Your task to perform on an android device: all mails in gmail Image 0: 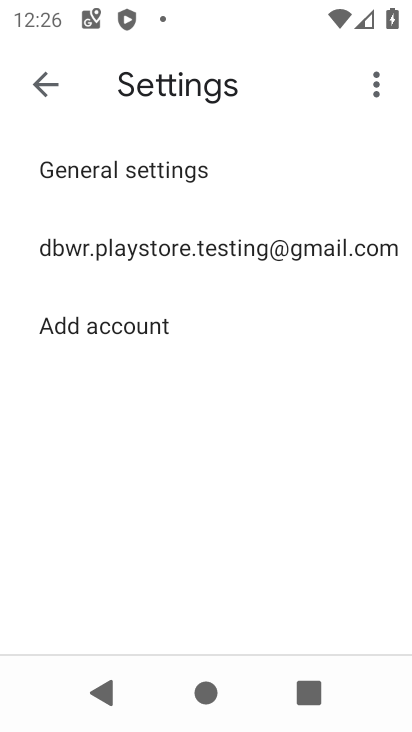
Step 0: press home button
Your task to perform on an android device: all mails in gmail Image 1: 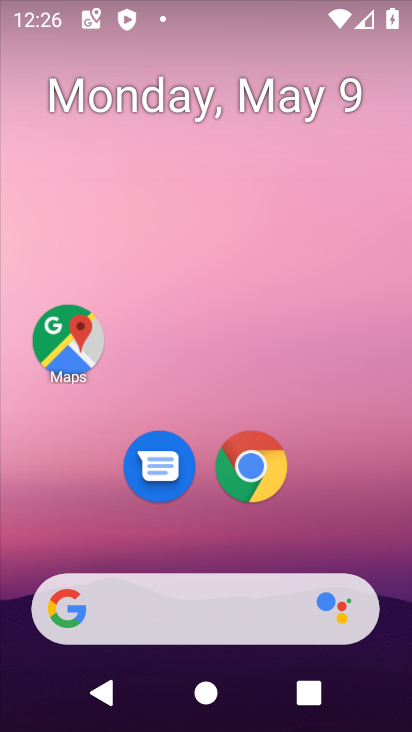
Step 1: drag from (385, 531) to (353, 244)
Your task to perform on an android device: all mails in gmail Image 2: 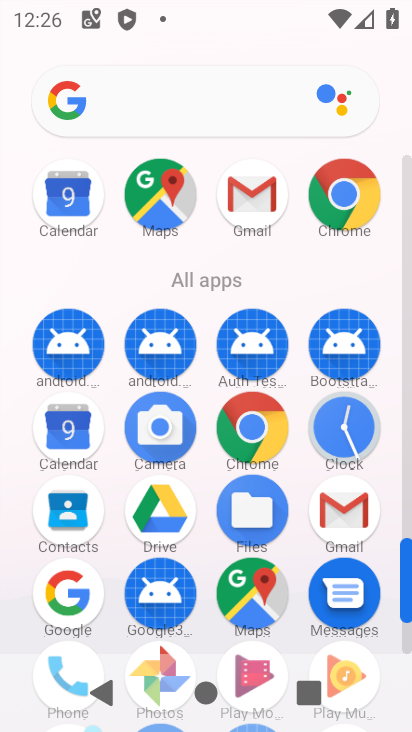
Step 2: click (248, 188)
Your task to perform on an android device: all mails in gmail Image 3: 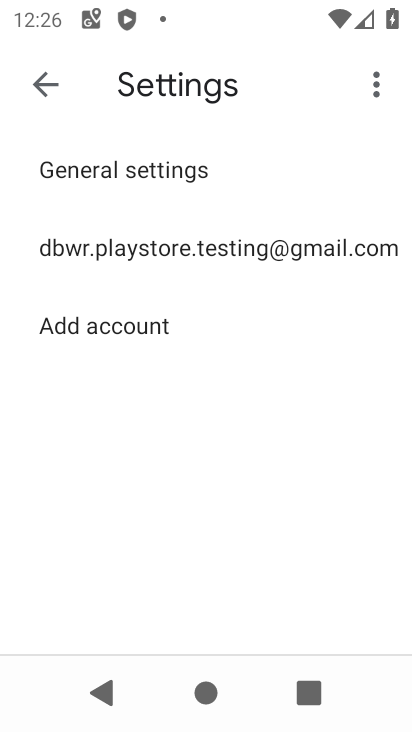
Step 3: click (247, 236)
Your task to perform on an android device: all mails in gmail Image 4: 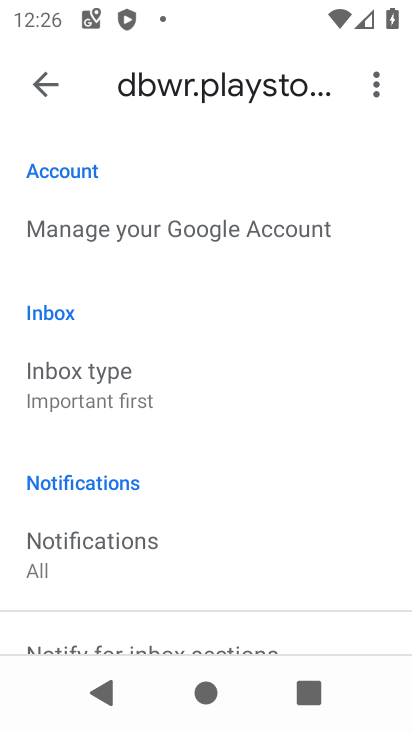
Step 4: drag from (293, 597) to (273, 220)
Your task to perform on an android device: all mails in gmail Image 5: 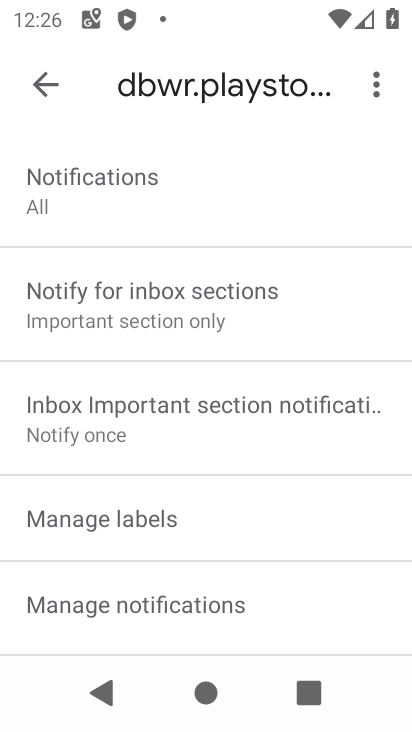
Step 5: click (40, 87)
Your task to perform on an android device: all mails in gmail Image 6: 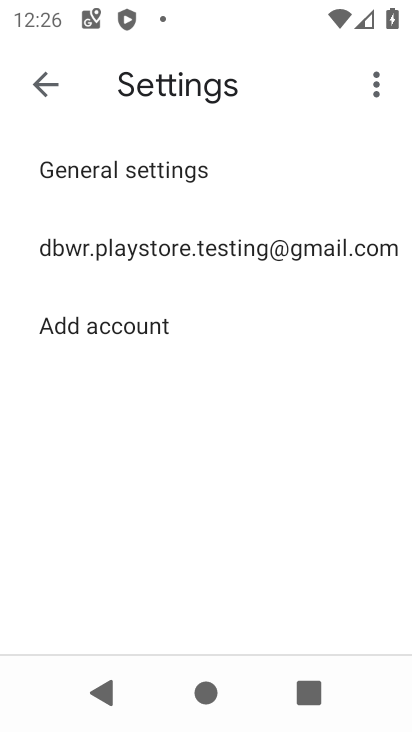
Step 6: click (40, 87)
Your task to perform on an android device: all mails in gmail Image 7: 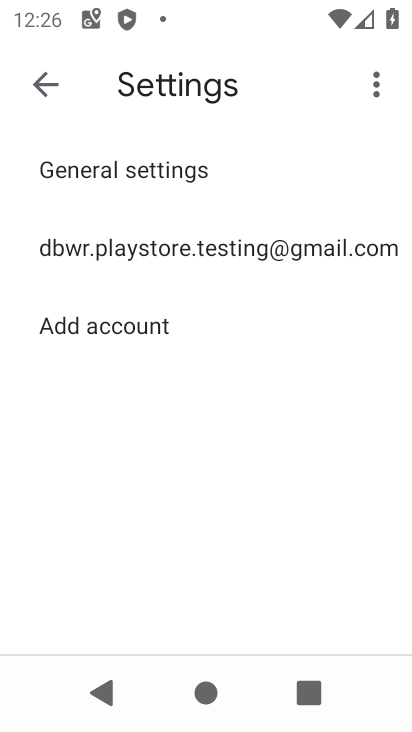
Step 7: click (40, 87)
Your task to perform on an android device: all mails in gmail Image 8: 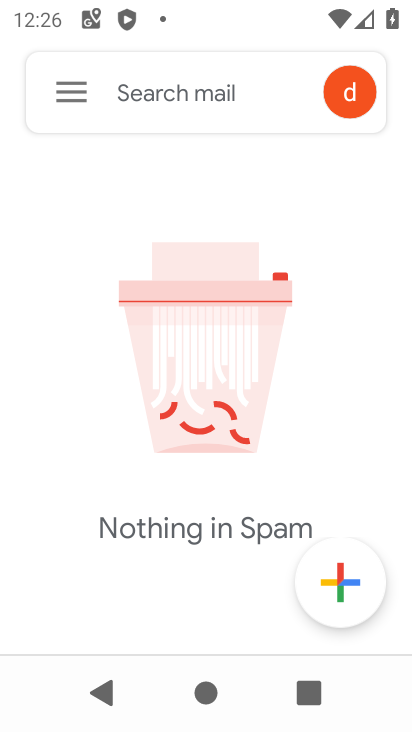
Step 8: click (65, 88)
Your task to perform on an android device: all mails in gmail Image 9: 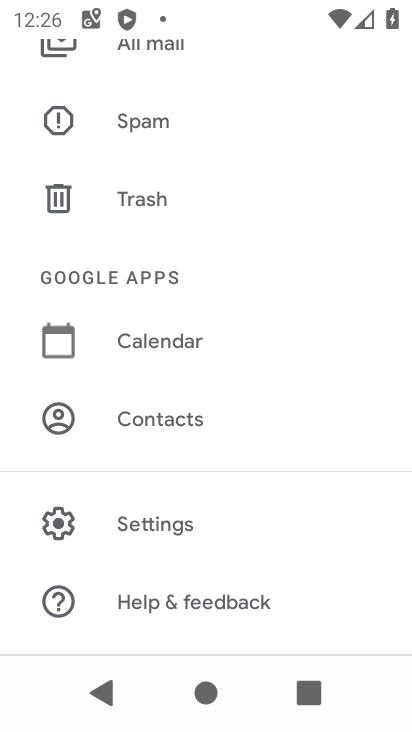
Step 9: drag from (225, 234) to (251, 548)
Your task to perform on an android device: all mails in gmail Image 10: 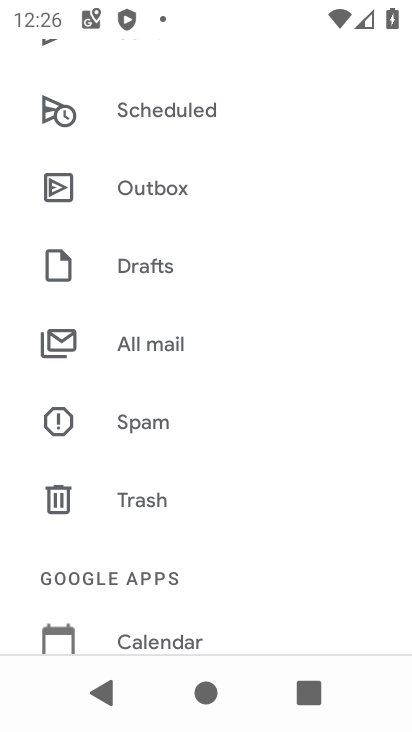
Step 10: click (212, 354)
Your task to perform on an android device: all mails in gmail Image 11: 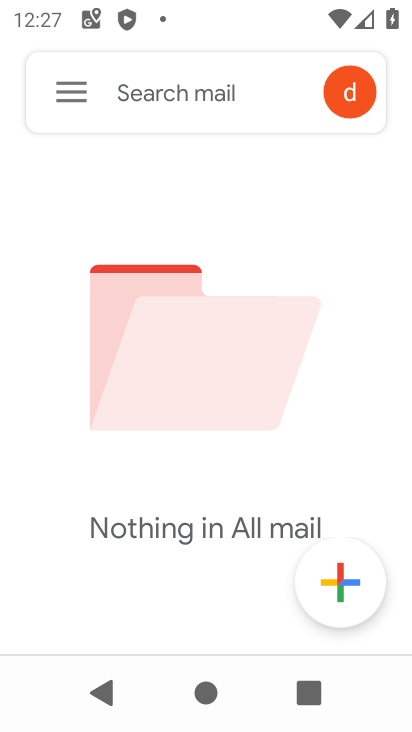
Step 11: task complete